Your task to perform on an android device: Open calendar and show me the third week of next month Image 0: 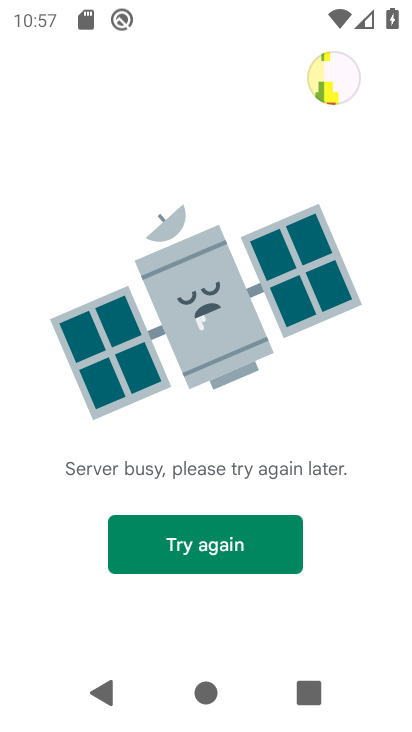
Step 0: press back button
Your task to perform on an android device: Open calendar and show me the third week of next month Image 1: 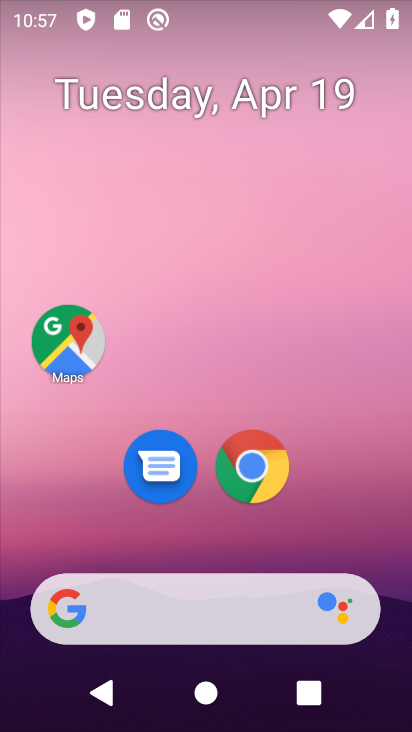
Step 1: drag from (169, 571) to (302, 90)
Your task to perform on an android device: Open calendar and show me the third week of next month Image 2: 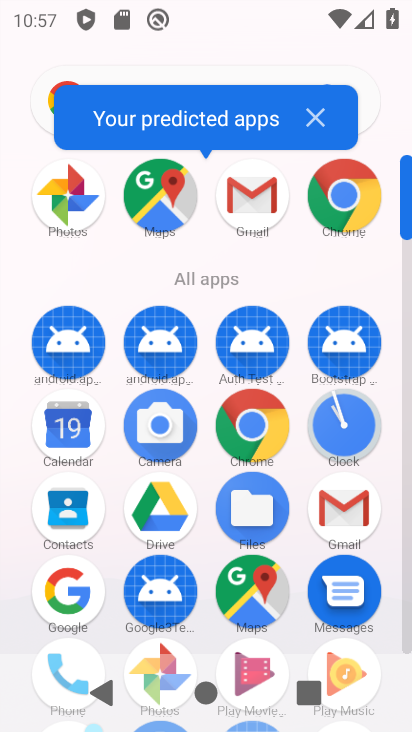
Step 2: click (92, 468)
Your task to perform on an android device: Open calendar and show me the third week of next month Image 3: 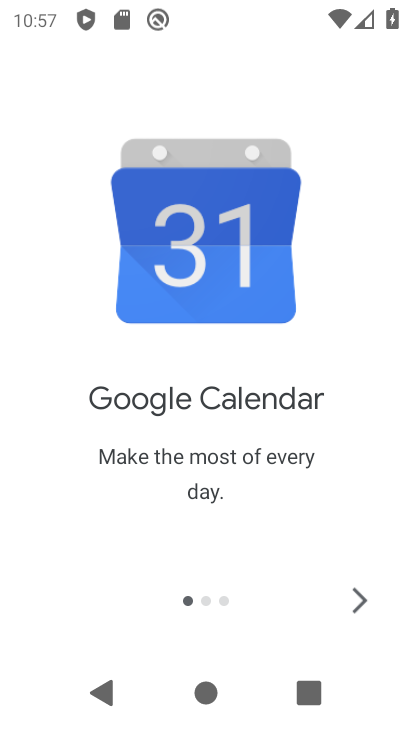
Step 3: click (348, 581)
Your task to perform on an android device: Open calendar and show me the third week of next month Image 4: 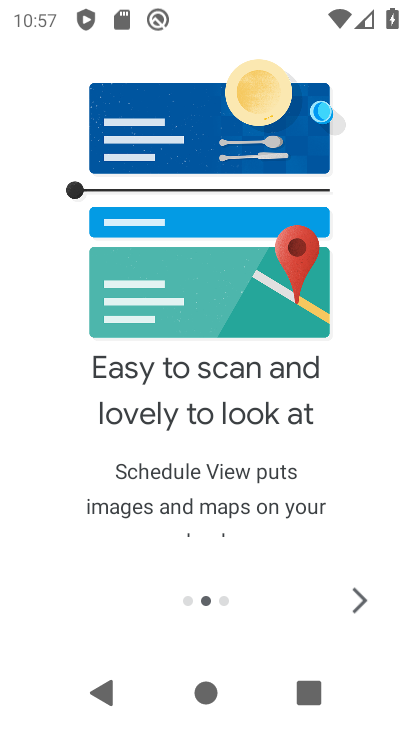
Step 4: click (373, 612)
Your task to perform on an android device: Open calendar and show me the third week of next month Image 5: 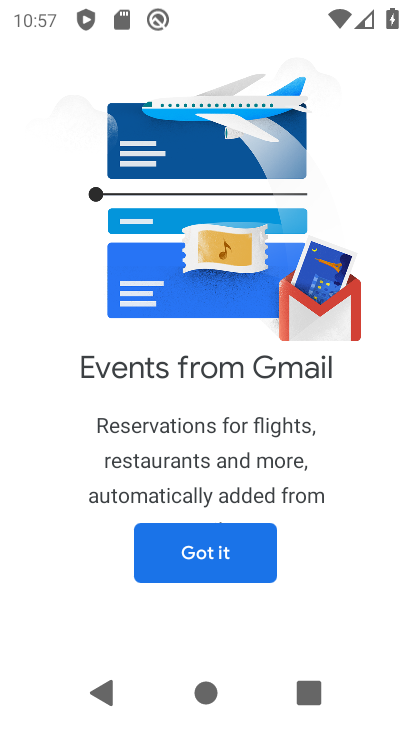
Step 5: click (163, 547)
Your task to perform on an android device: Open calendar and show me the third week of next month Image 6: 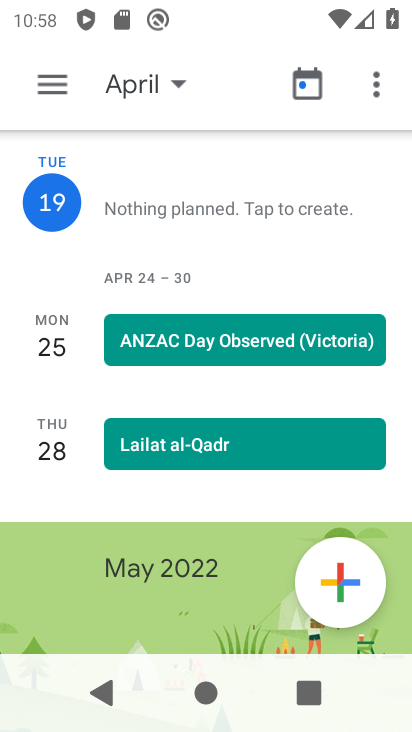
Step 6: click (55, 100)
Your task to perform on an android device: Open calendar and show me the third week of next month Image 7: 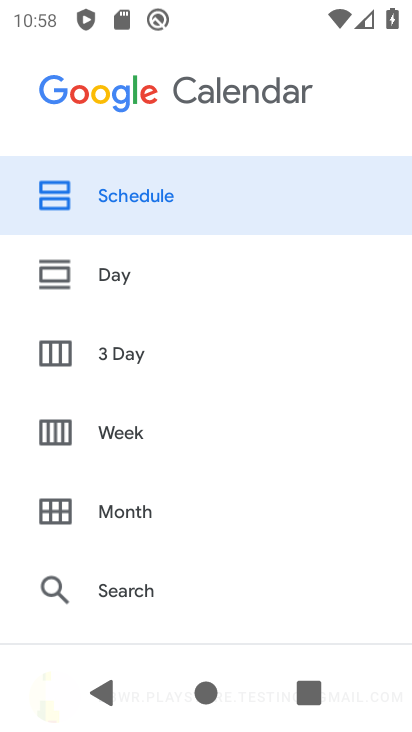
Step 7: click (164, 438)
Your task to perform on an android device: Open calendar and show me the third week of next month Image 8: 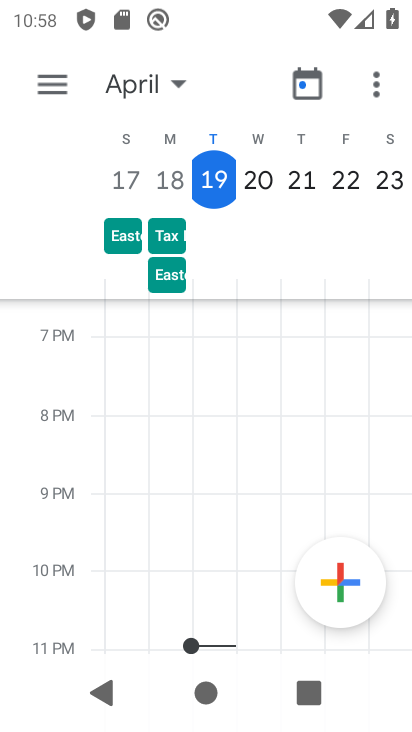
Step 8: click (175, 90)
Your task to perform on an android device: Open calendar and show me the third week of next month Image 9: 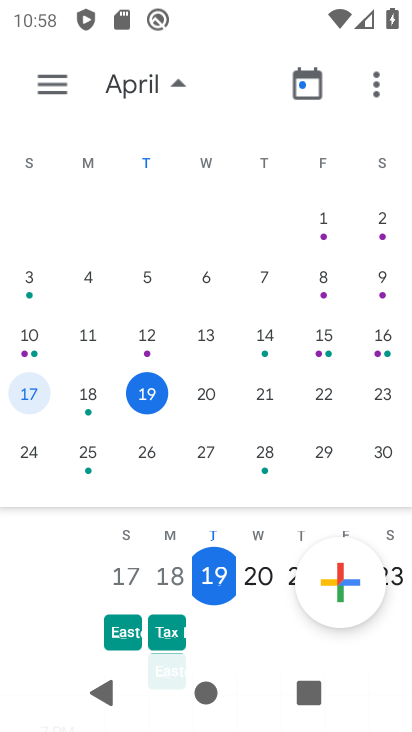
Step 9: drag from (395, 355) to (39, 345)
Your task to perform on an android device: Open calendar and show me the third week of next month Image 10: 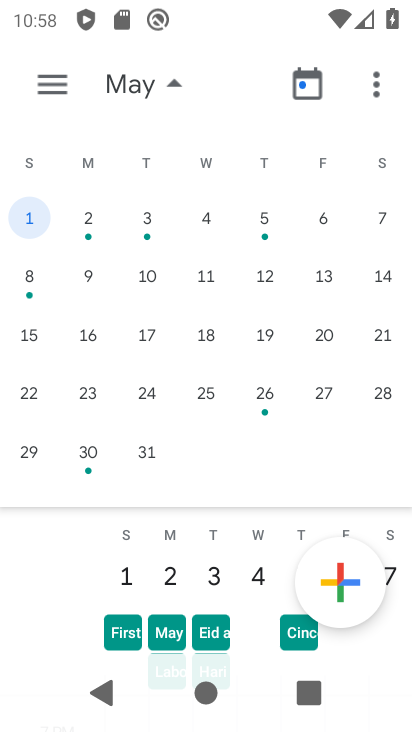
Step 10: click (43, 339)
Your task to perform on an android device: Open calendar and show me the third week of next month Image 11: 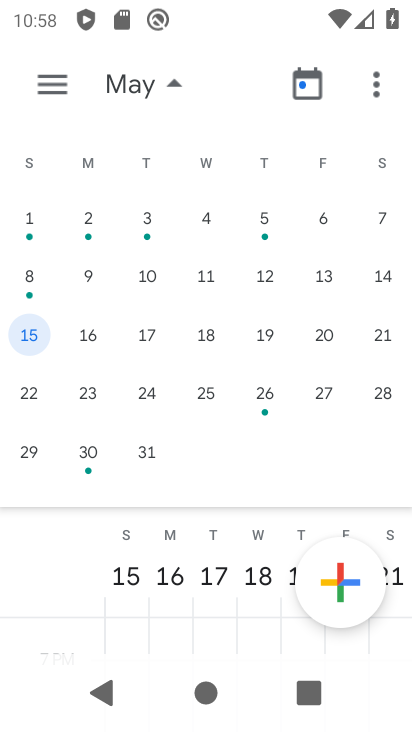
Step 11: task complete